Your task to perform on an android device: open app "Skype" (install if not already installed) and enter user name: "rumor@gmail.com" and password: "kinsman" Image 0: 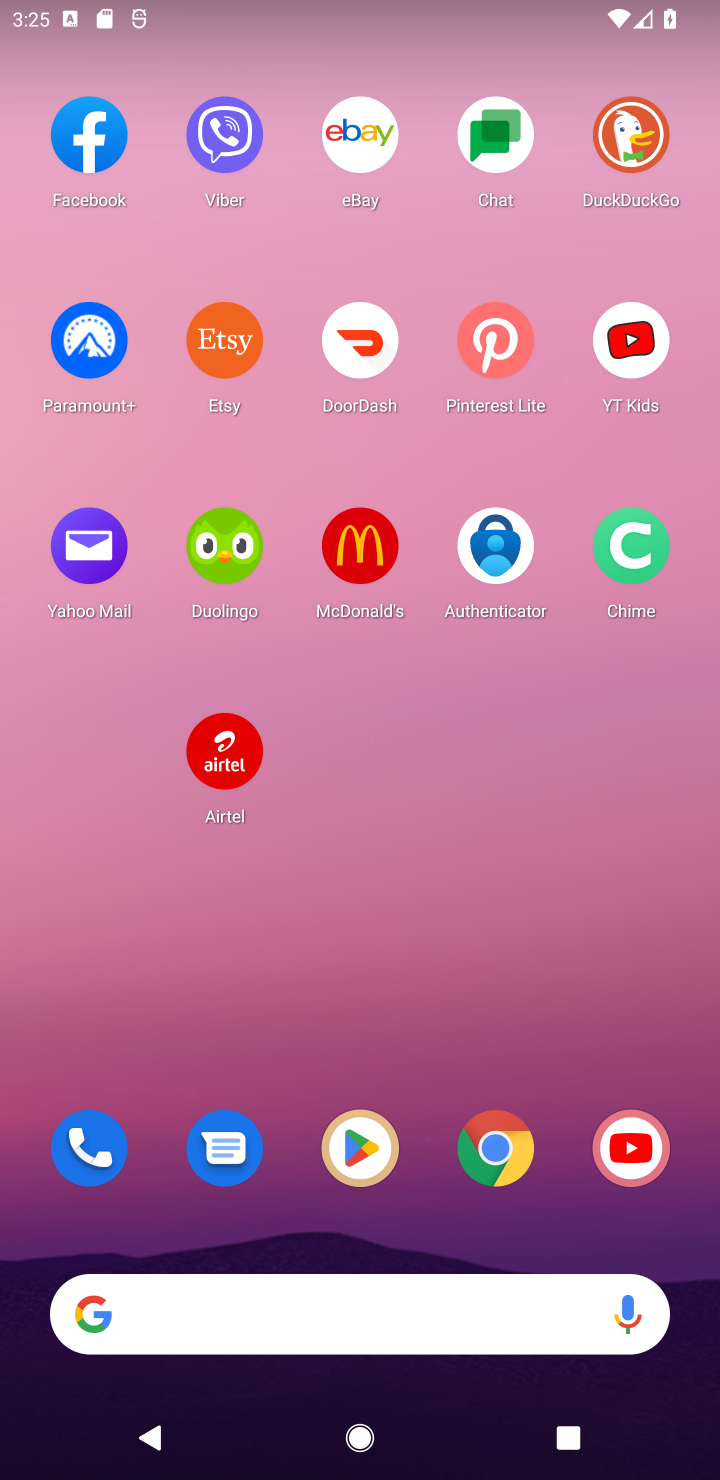
Step 0: click (375, 1139)
Your task to perform on an android device: open app "Skype" (install if not already installed) and enter user name: "rumor@gmail.com" and password: "kinsman" Image 1: 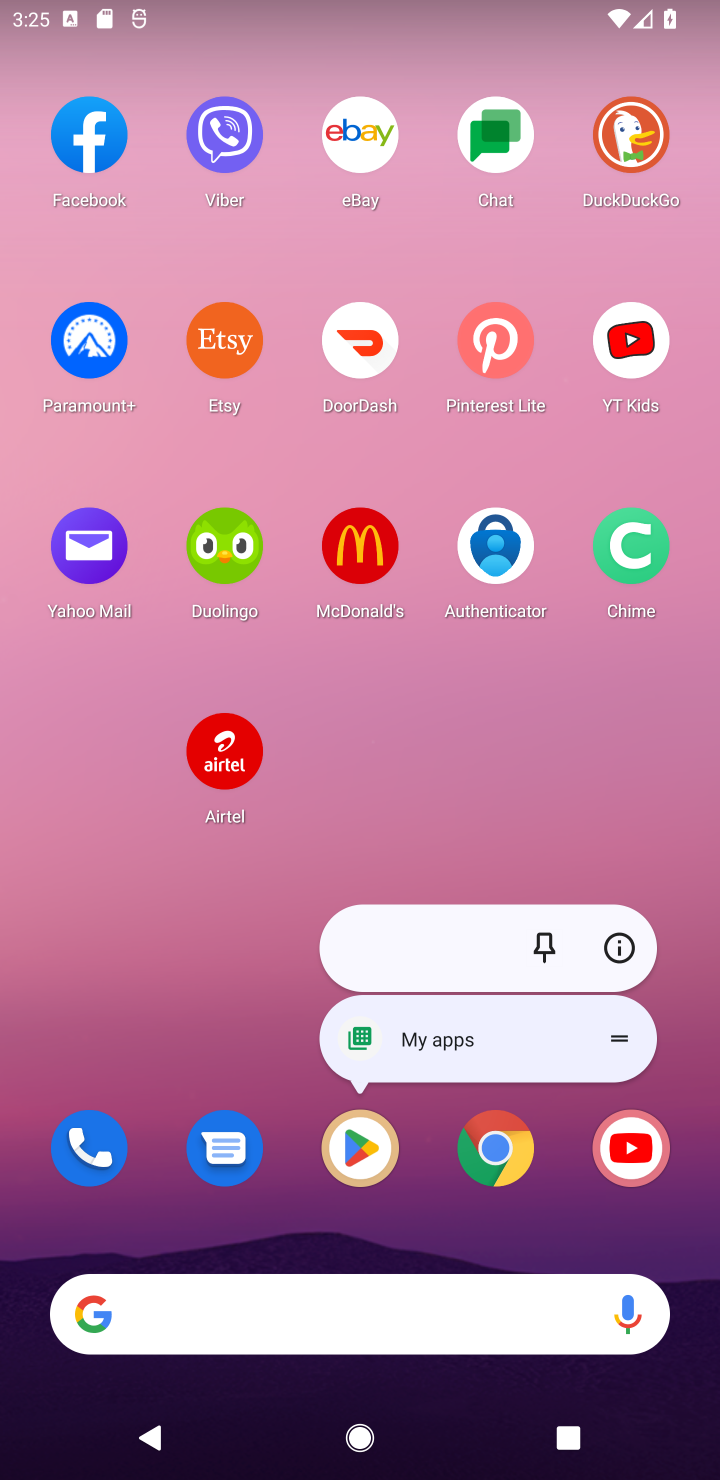
Step 1: drag from (340, 1273) to (331, 584)
Your task to perform on an android device: open app "Skype" (install if not already installed) and enter user name: "rumor@gmail.com" and password: "kinsman" Image 2: 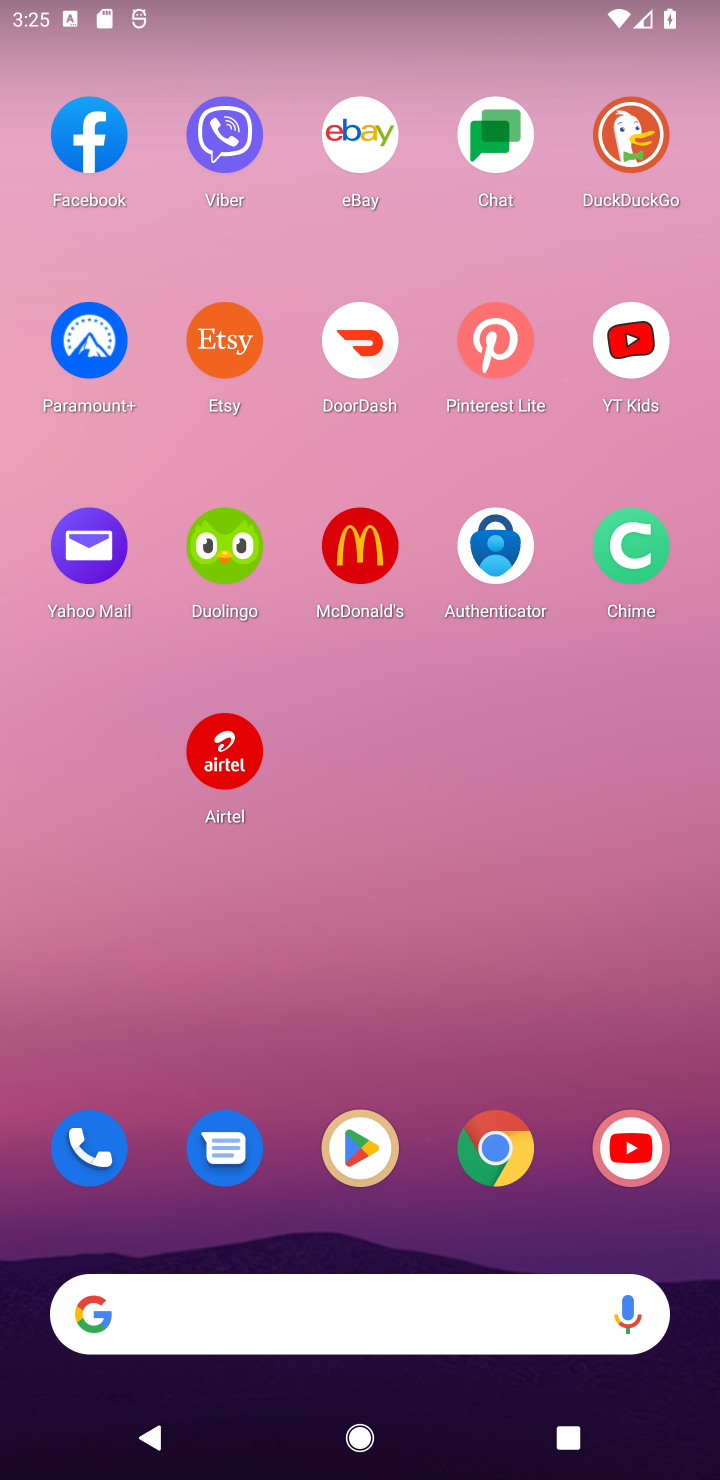
Step 2: drag from (283, 1085) to (314, 499)
Your task to perform on an android device: open app "Skype" (install if not already installed) and enter user name: "rumor@gmail.com" and password: "kinsman" Image 3: 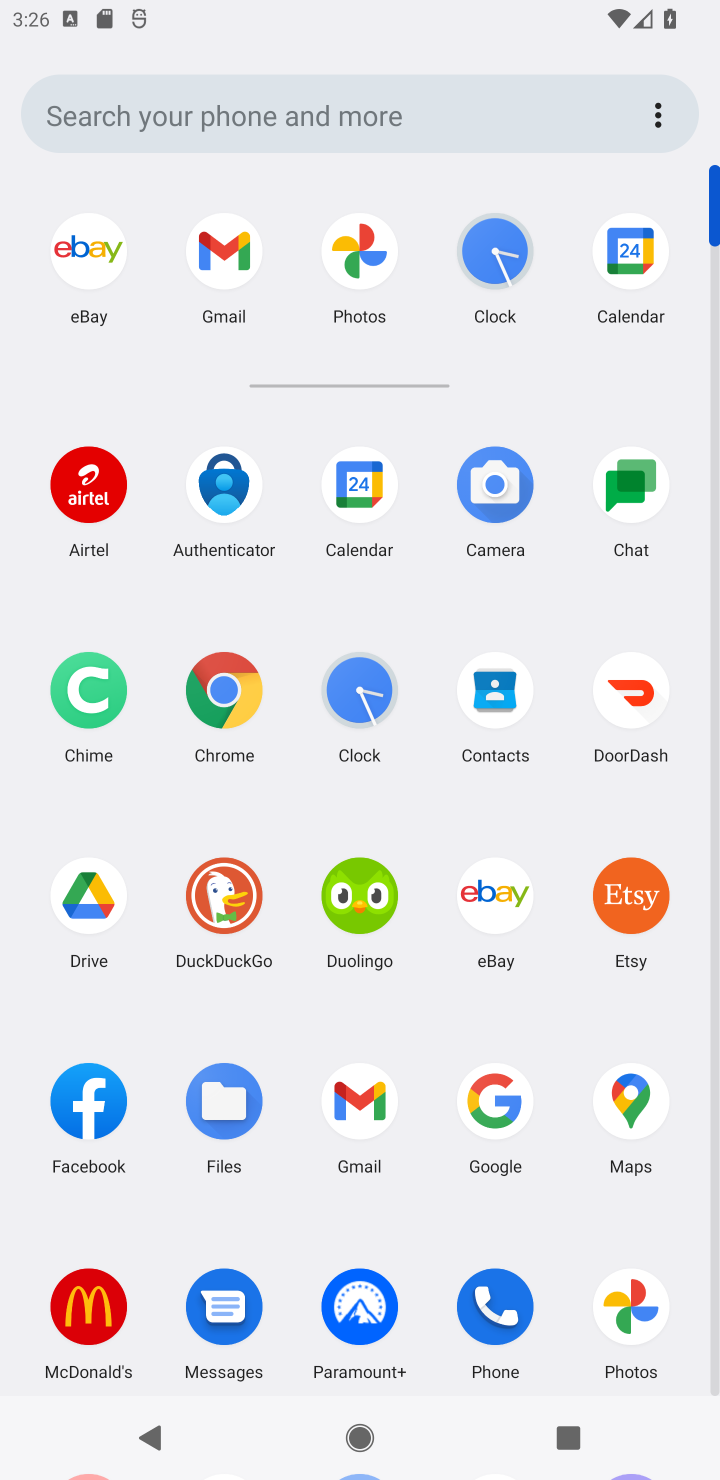
Step 3: drag from (411, 1297) to (445, 248)
Your task to perform on an android device: open app "Skype" (install if not already installed) and enter user name: "rumor@gmail.com" and password: "kinsman" Image 4: 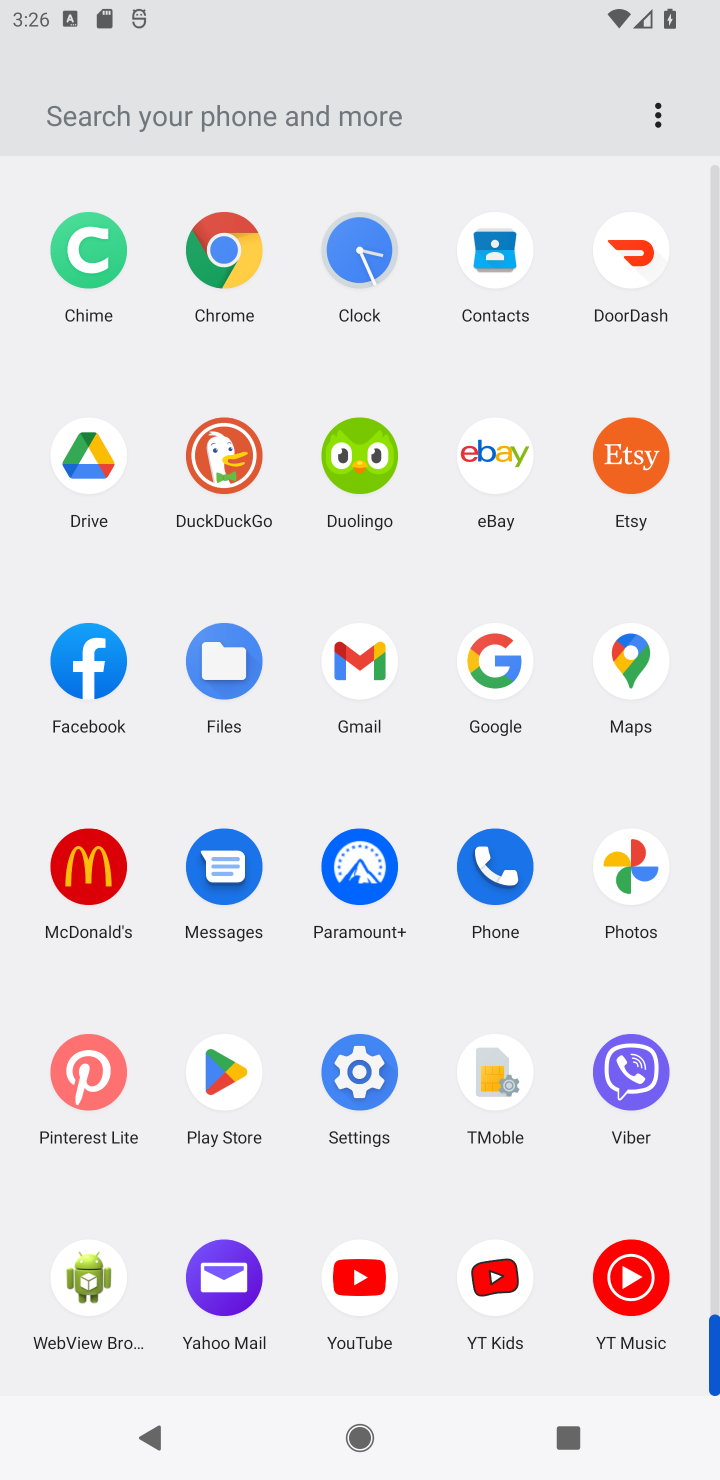
Step 4: click (217, 1301)
Your task to perform on an android device: open app "Skype" (install if not already installed) and enter user name: "rumor@gmail.com" and password: "kinsman" Image 5: 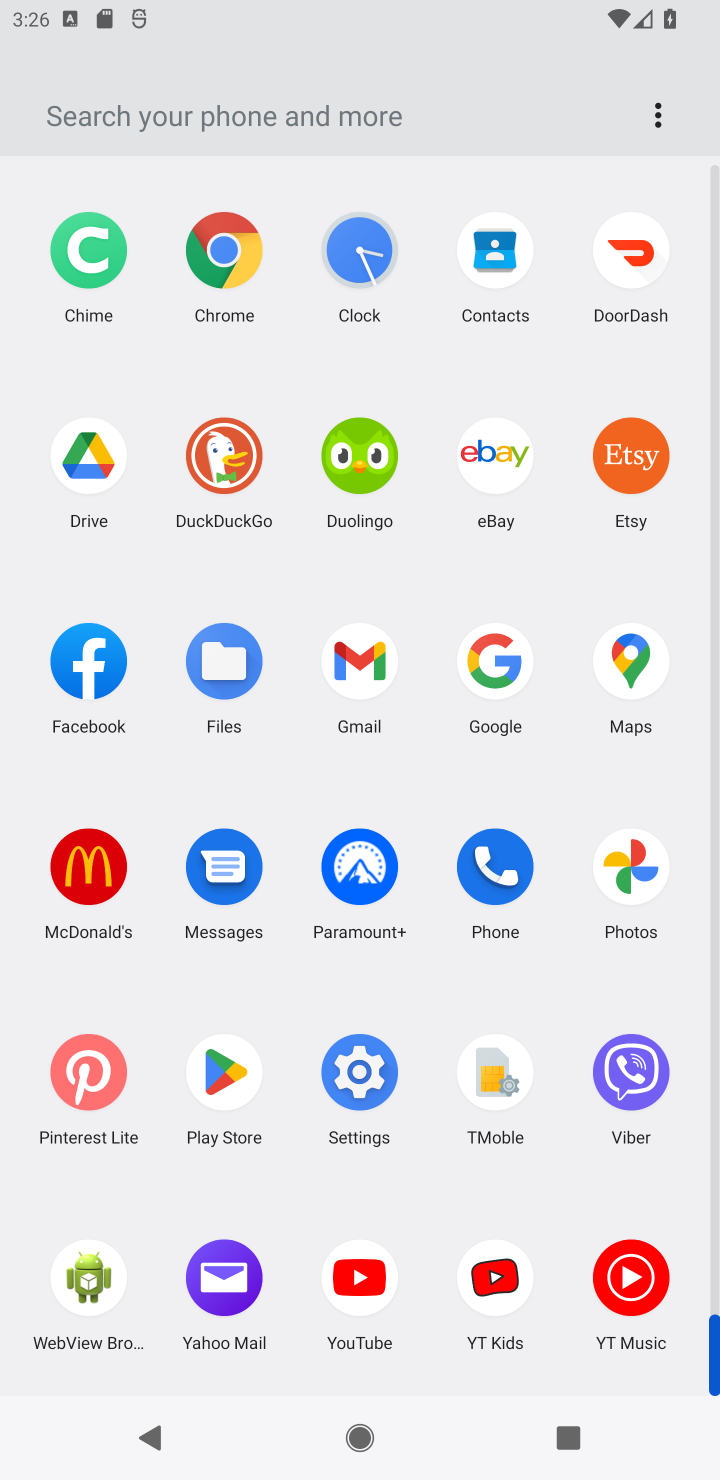
Step 5: drag from (217, 1301) to (337, 608)
Your task to perform on an android device: open app "Skype" (install if not already installed) and enter user name: "rumor@gmail.com" and password: "kinsman" Image 6: 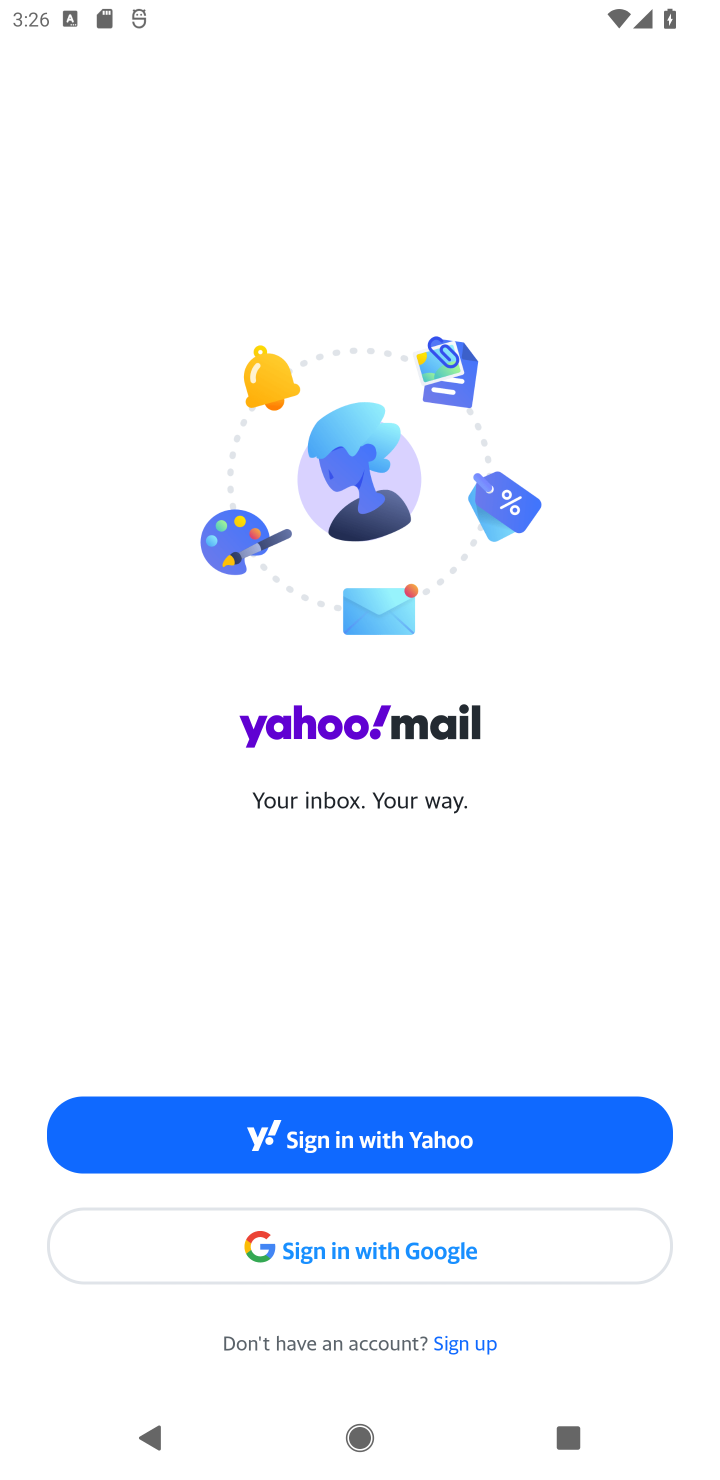
Step 6: press back button
Your task to perform on an android device: open app "Skype" (install if not already installed) and enter user name: "rumor@gmail.com" and password: "kinsman" Image 7: 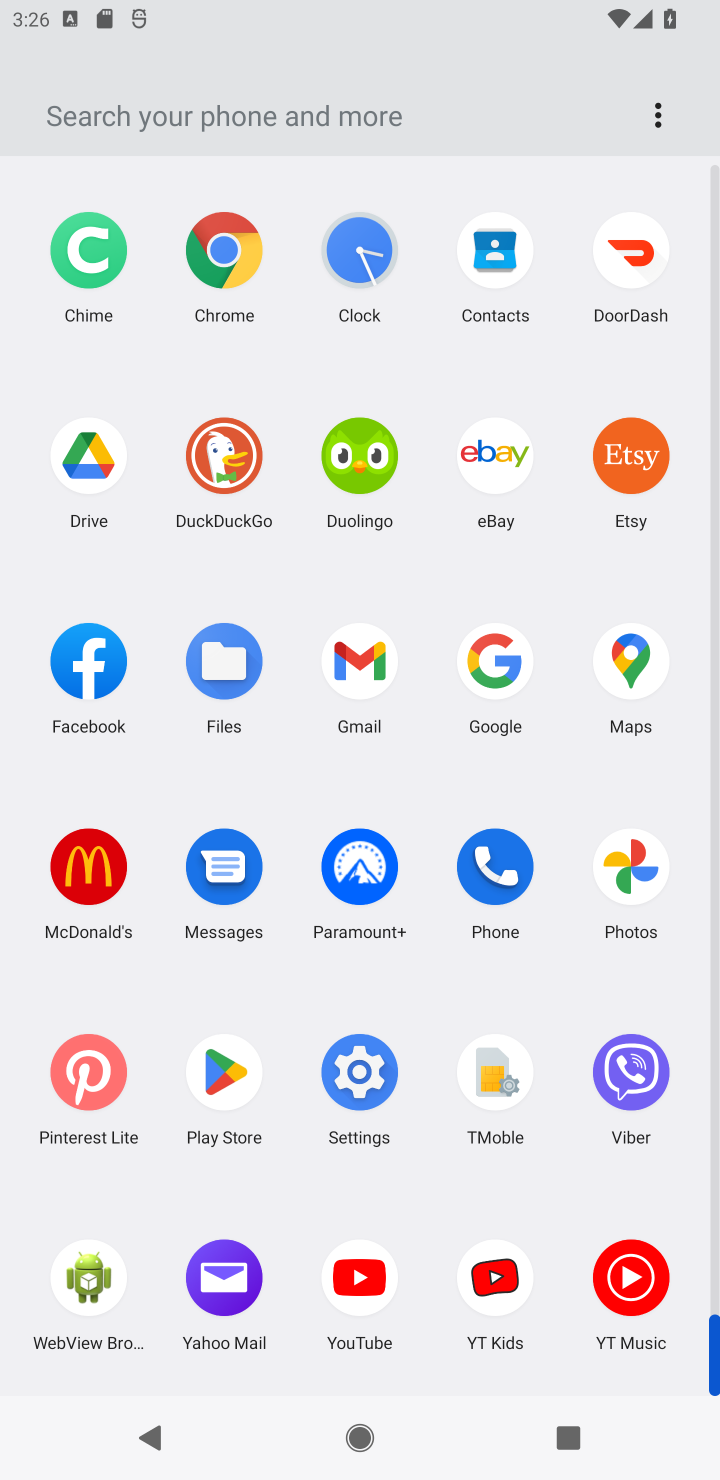
Step 7: click (194, 1053)
Your task to perform on an android device: open app "Skype" (install if not already installed) and enter user name: "rumor@gmail.com" and password: "kinsman" Image 8: 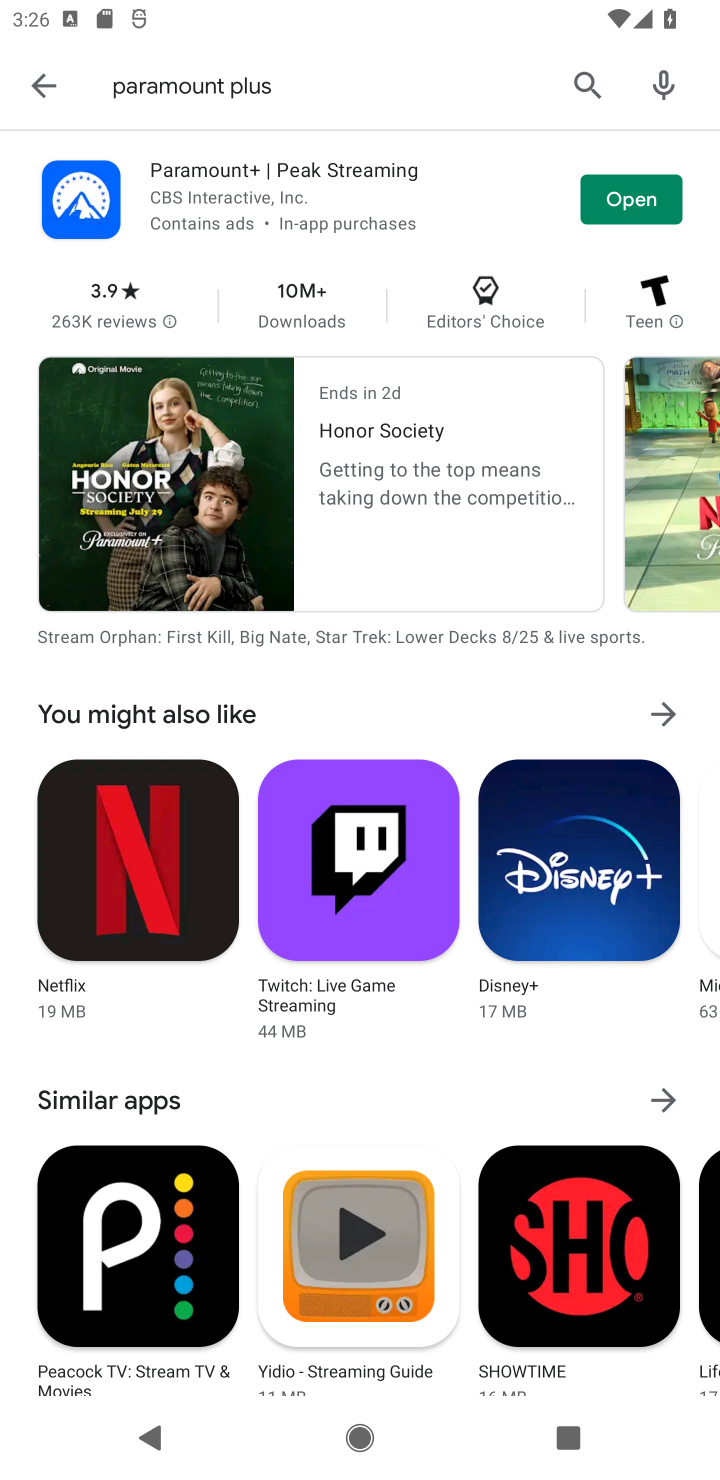
Step 8: click (35, 63)
Your task to perform on an android device: open app "Skype" (install if not already installed) and enter user name: "rumor@gmail.com" and password: "kinsman" Image 9: 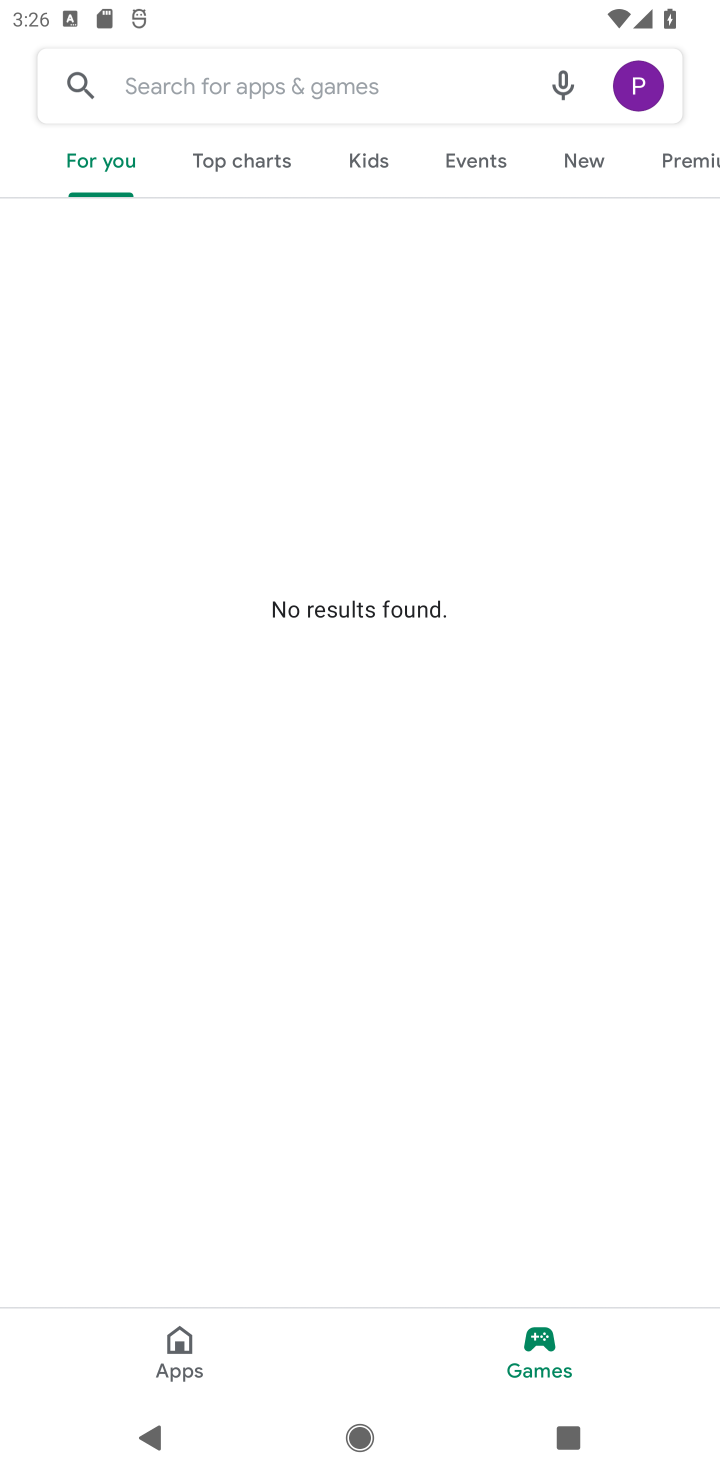
Step 9: click (211, 66)
Your task to perform on an android device: open app "Skype" (install if not already installed) and enter user name: "rumor@gmail.com" and password: "kinsman" Image 10: 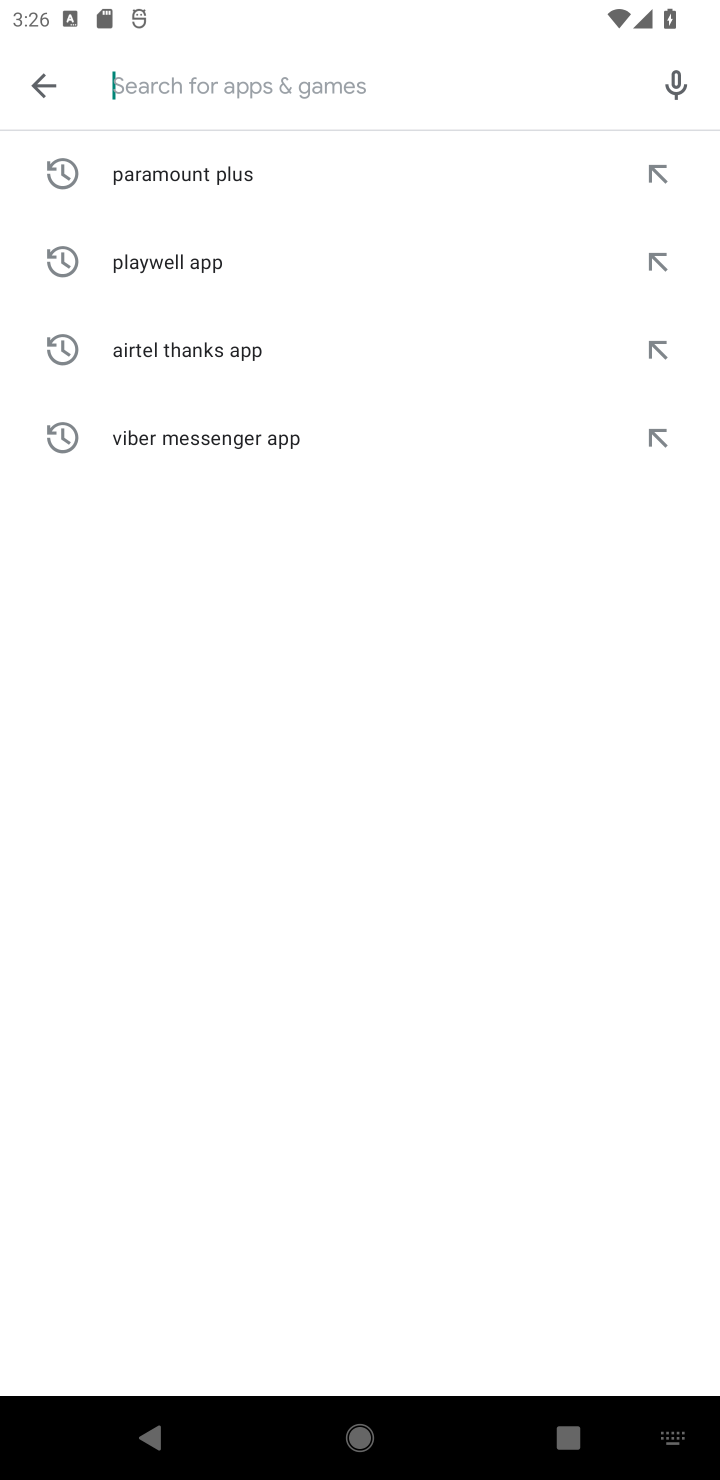
Step 10: click (225, 78)
Your task to perform on an android device: open app "Skype" (install if not already installed) and enter user name: "rumor@gmail.com" and password: "kinsman" Image 11: 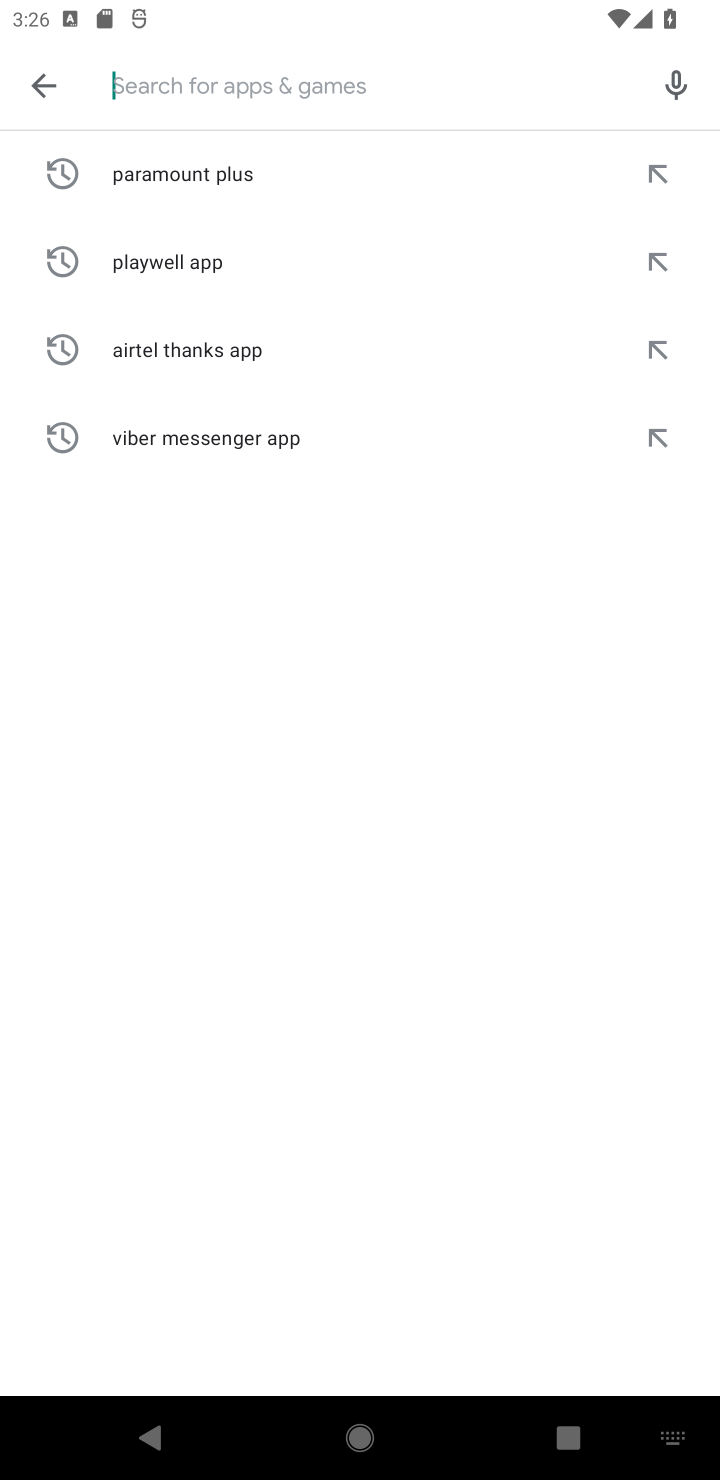
Step 11: type "Skype "
Your task to perform on an android device: open app "Skype" (install if not already installed) and enter user name: "rumor@gmail.com" and password: "kinsman" Image 12: 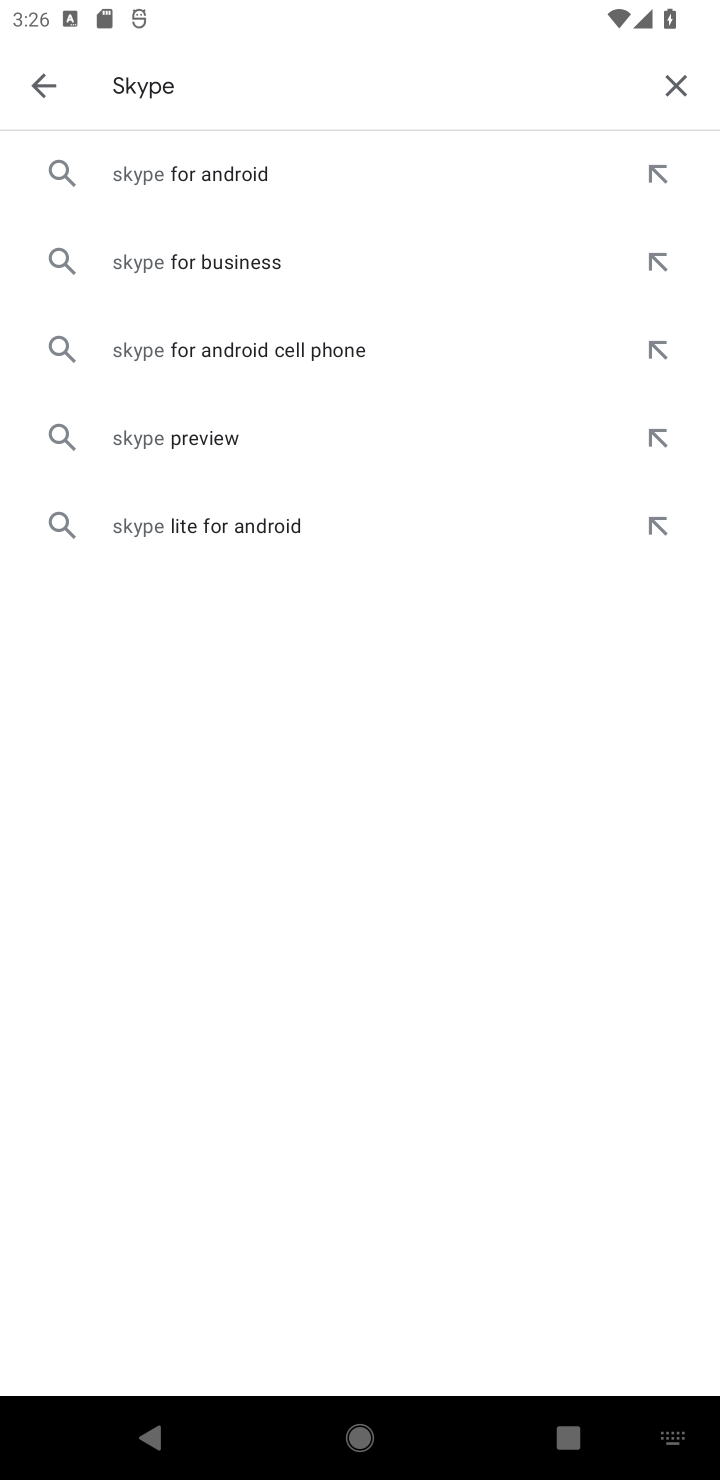
Step 12: click (145, 167)
Your task to perform on an android device: open app "Skype" (install if not already installed) and enter user name: "rumor@gmail.com" and password: "kinsman" Image 13: 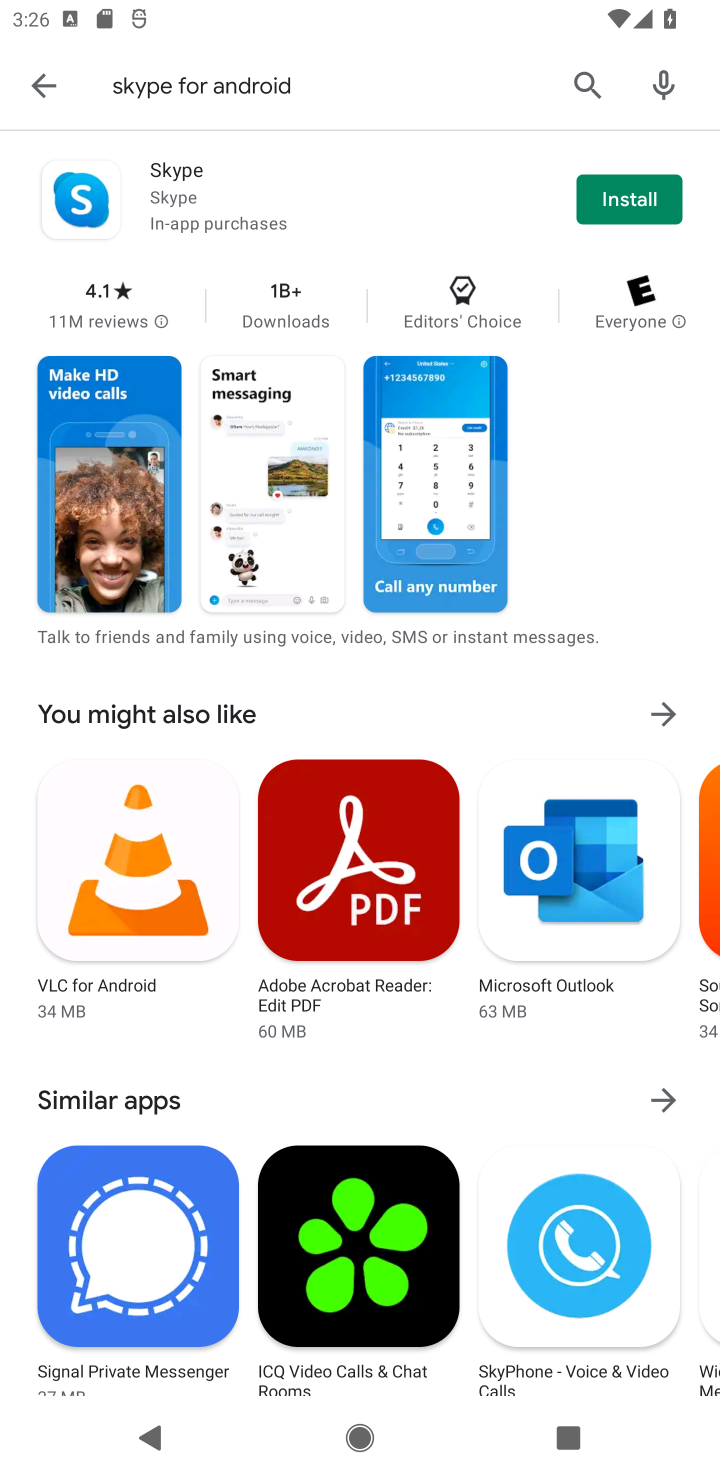
Step 13: click (642, 191)
Your task to perform on an android device: open app "Skype" (install if not already installed) and enter user name: "rumor@gmail.com" and password: "kinsman" Image 14: 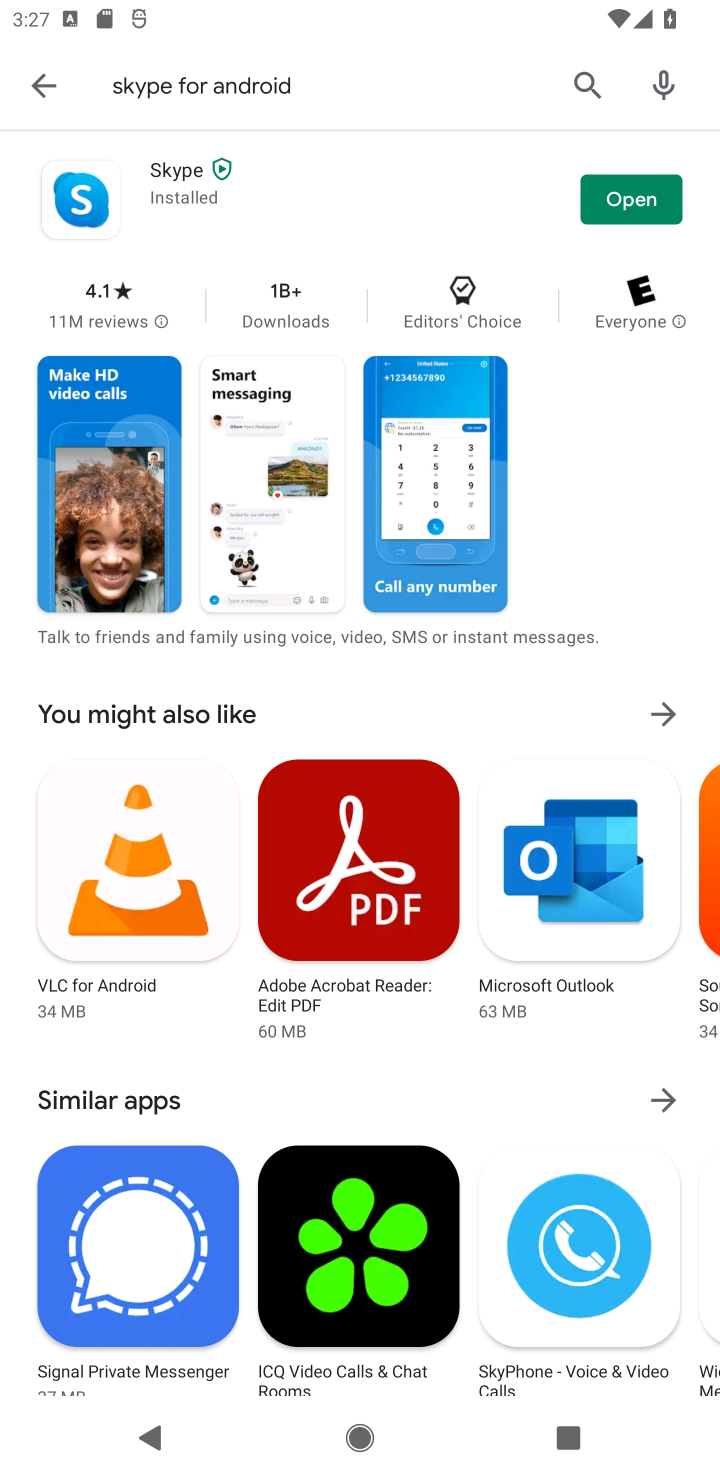
Step 14: click (617, 195)
Your task to perform on an android device: open app "Skype" (install if not already installed) and enter user name: "rumor@gmail.com" and password: "kinsman" Image 15: 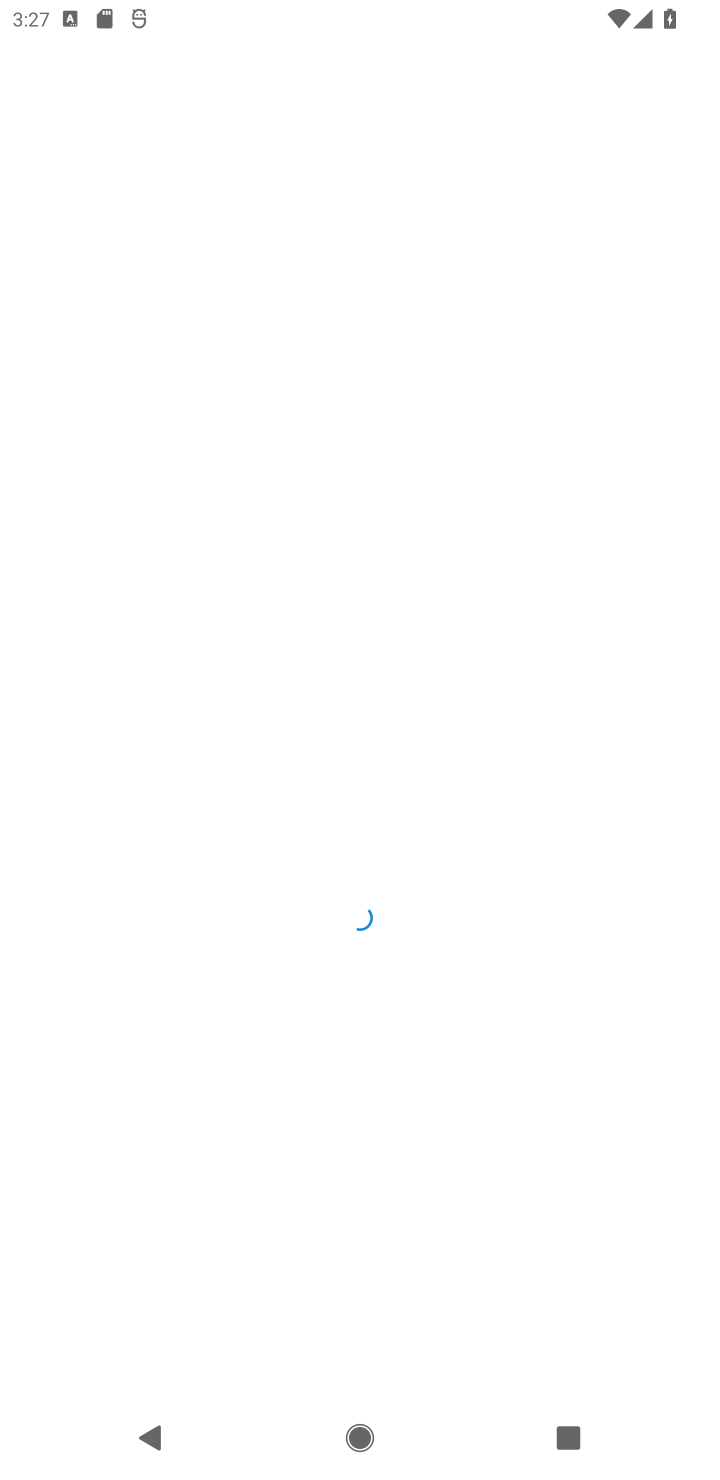
Step 15: task complete